Your task to perform on an android device: Open the calendar app, open the side menu, and click the "Day" option Image 0: 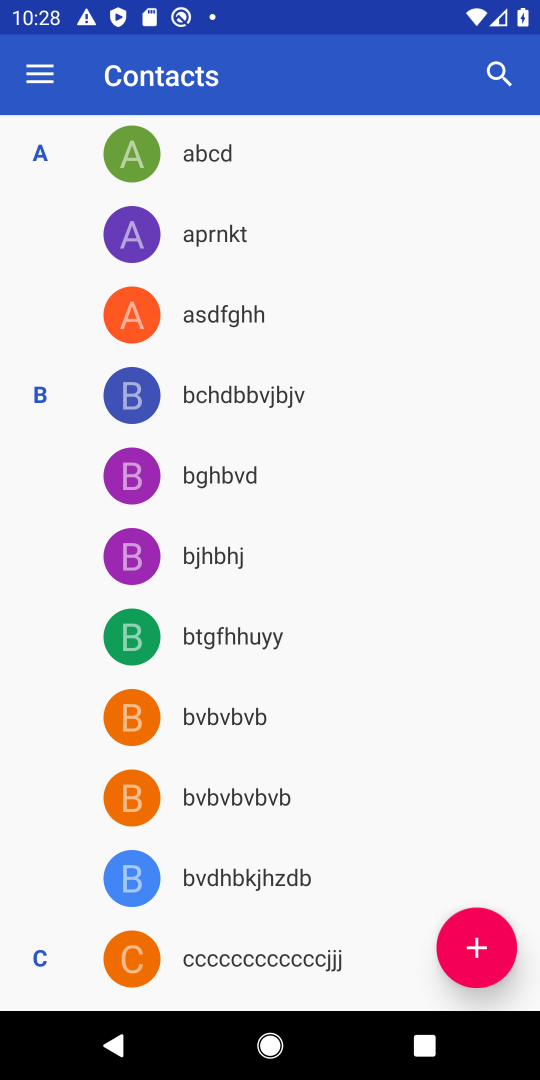
Step 0: press home button
Your task to perform on an android device: Open the calendar app, open the side menu, and click the "Day" option Image 1: 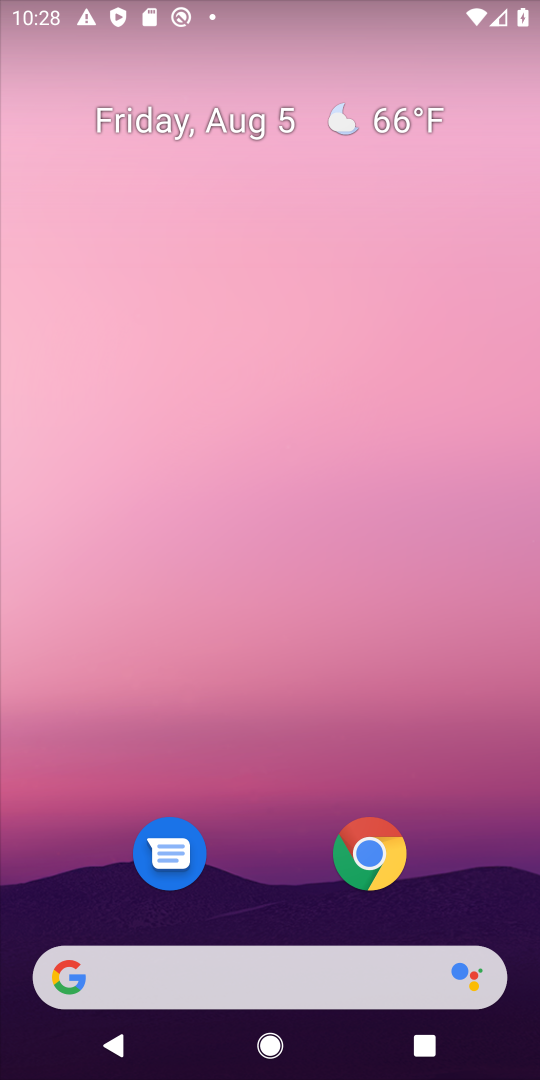
Step 1: drag from (260, 889) to (188, 137)
Your task to perform on an android device: Open the calendar app, open the side menu, and click the "Day" option Image 2: 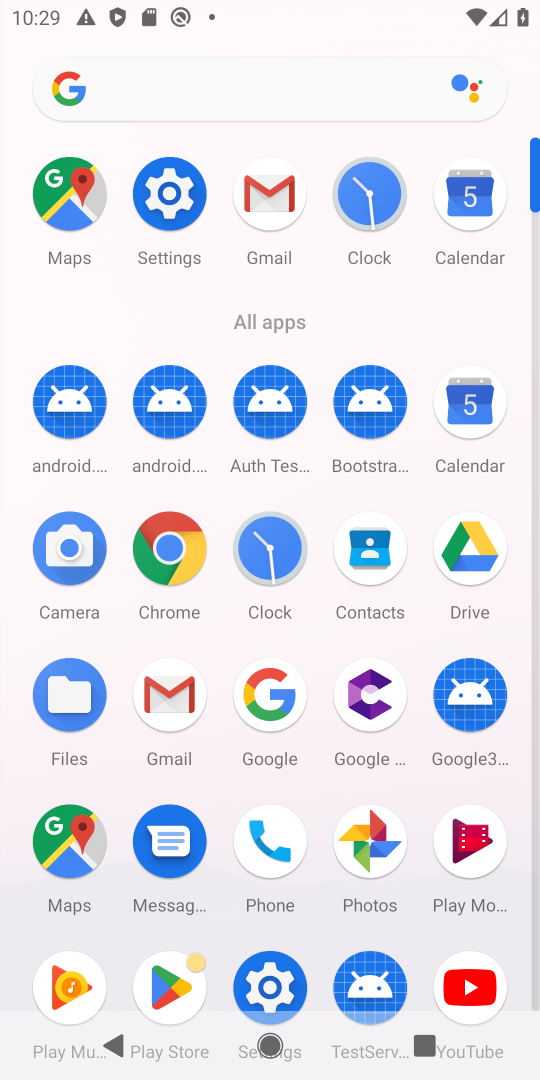
Step 2: click (466, 408)
Your task to perform on an android device: Open the calendar app, open the side menu, and click the "Day" option Image 3: 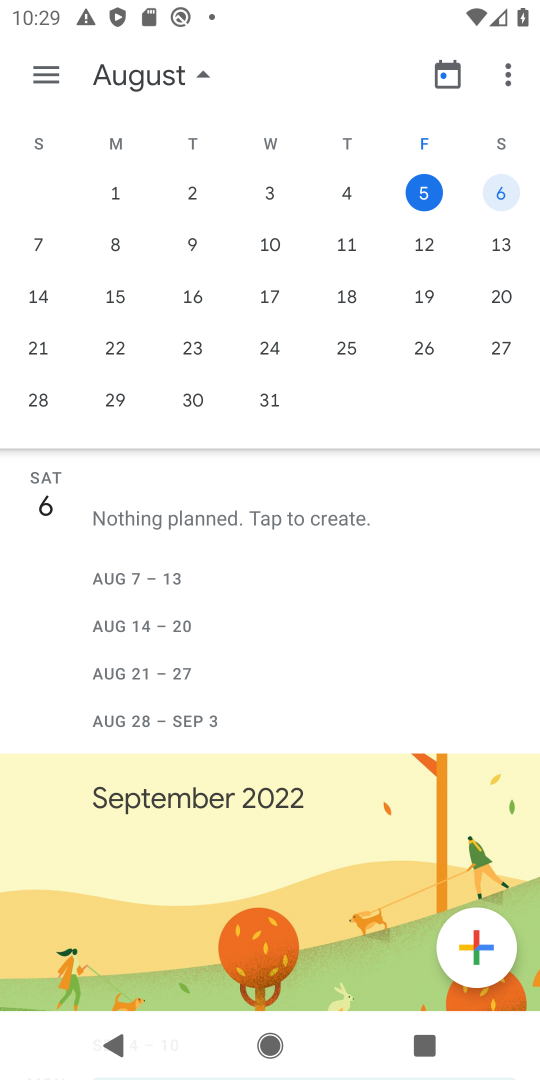
Step 3: click (41, 80)
Your task to perform on an android device: Open the calendar app, open the side menu, and click the "Day" option Image 4: 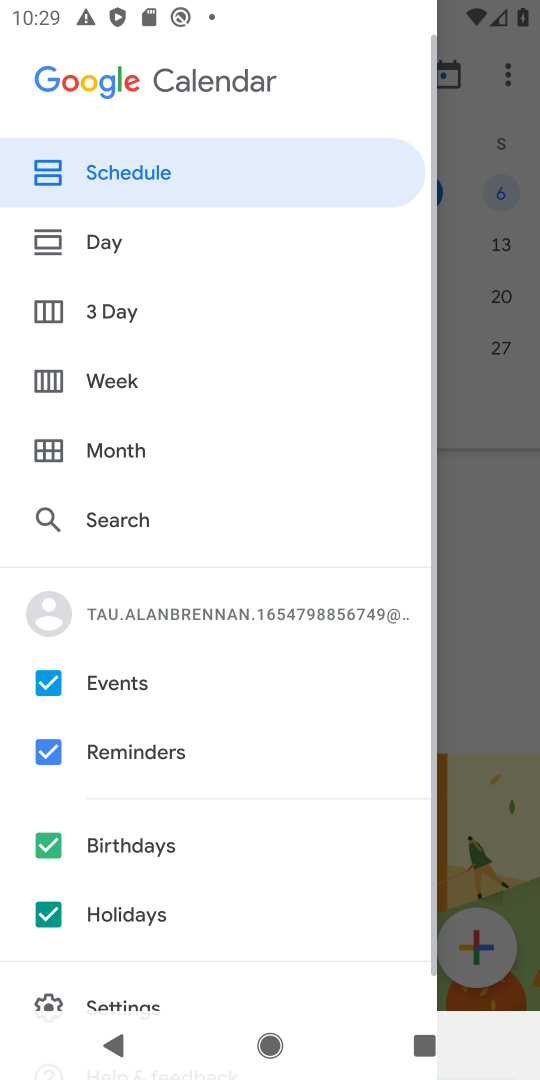
Step 4: click (130, 240)
Your task to perform on an android device: Open the calendar app, open the side menu, and click the "Day" option Image 5: 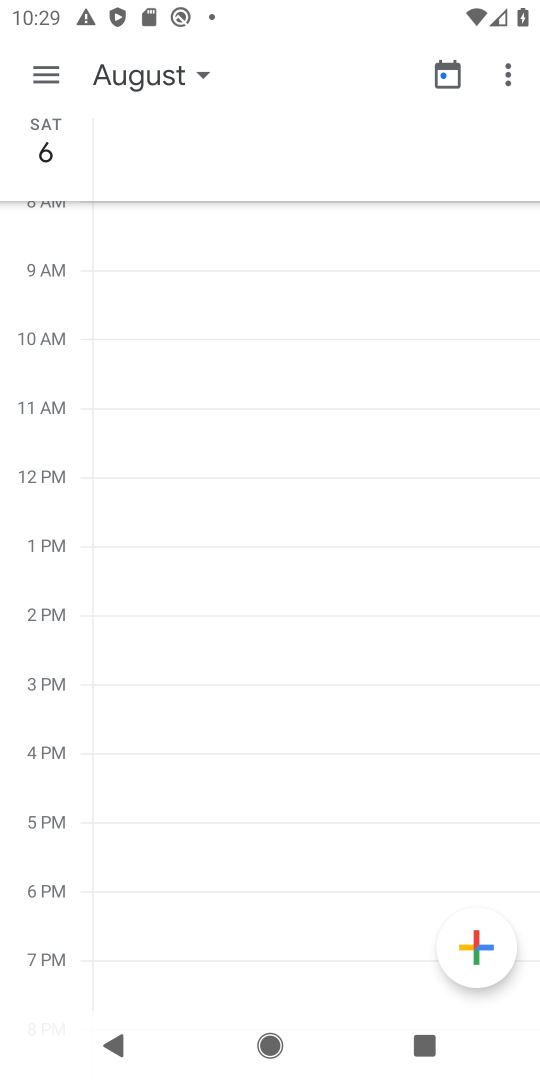
Step 5: task complete